Your task to perform on an android device: Open calendar and show me the second week of next month Image 0: 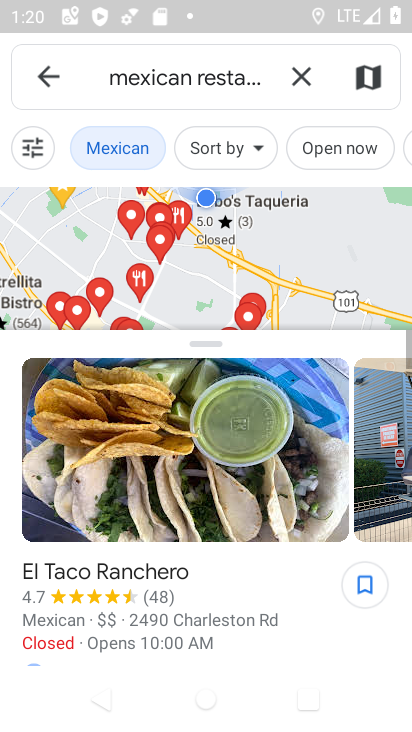
Step 0: press home button
Your task to perform on an android device: Open calendar and show me the second week of next month Image 1: 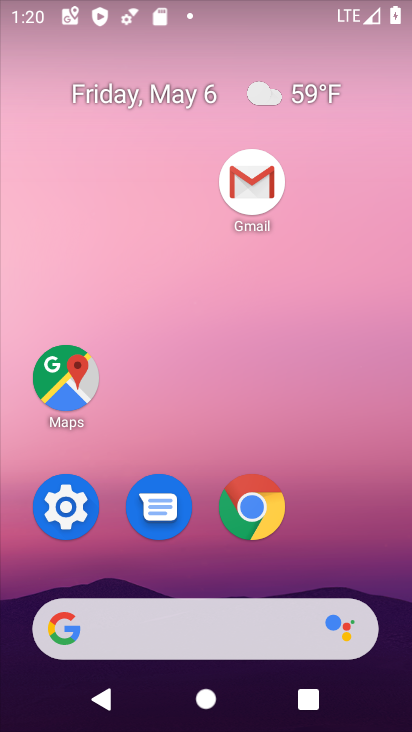
Step 1: drag from (350, 523) to (283, 43)
Your task to perform on an android device: Open calendar and show me the second week of next month Image 2: 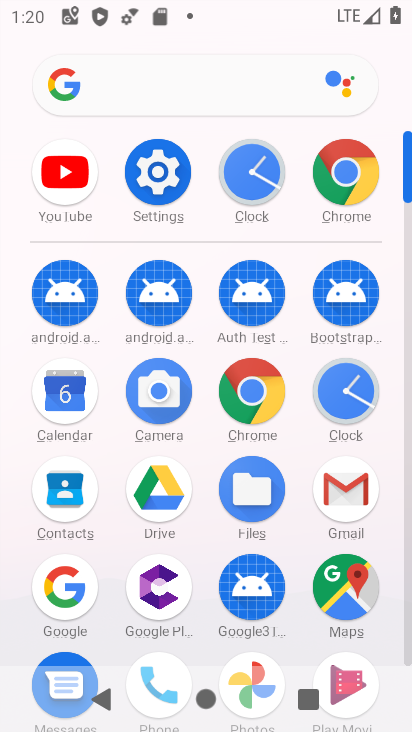
Step 2: click (65, 385)
Your task to perform on an android device: Open calendar and show me the second week of next month Image 3: 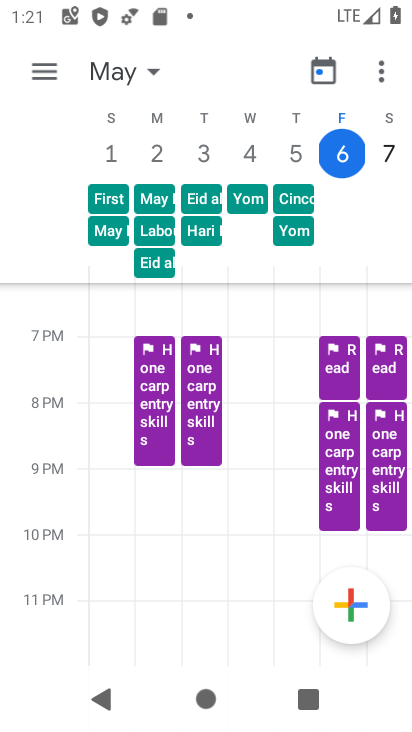
Step 3: click (152, 75)
Your task to perform on an android device: Open calendar and show me the second week of next month Image 4: 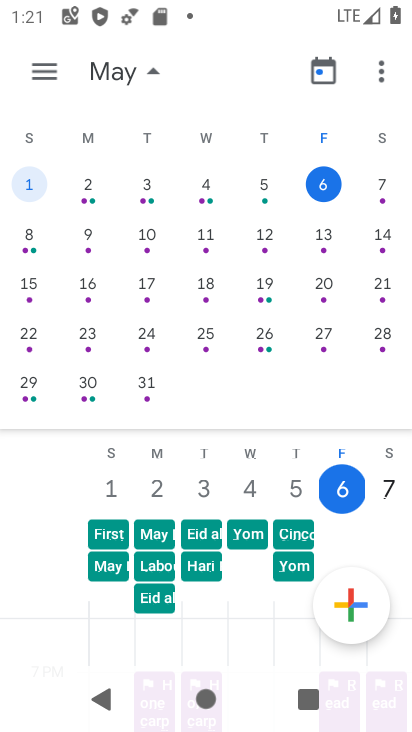
Step 4: drag from (361, 280) to (9, 167)
Your task to perform on an android device: Open calendar and show me the second week of next month Image 5: 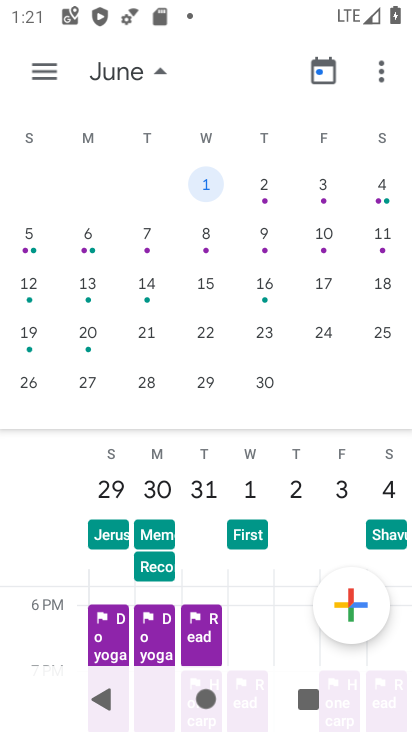
Step 5: click (203, 235)
Your task to perform on an android device: Open calendar and show me the second week of next month Image 6: 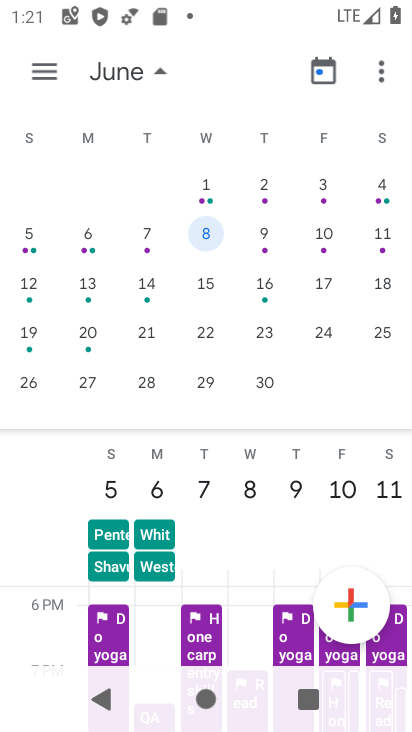
Step 6: task complete